Your task to perform on an android device: set the timer Image 0: 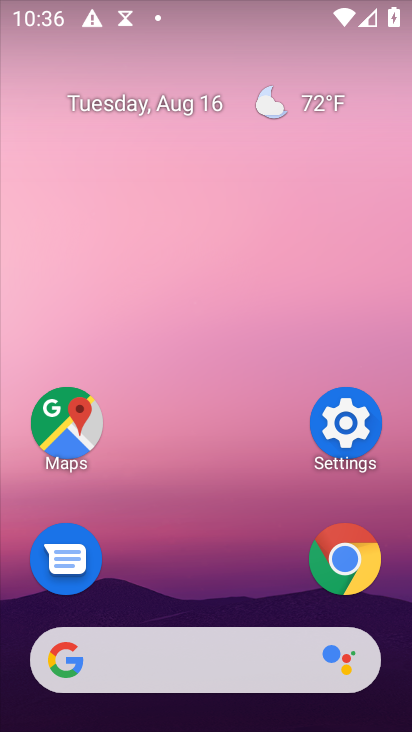
Step 0: drag from (210, 549) to (328, 56)
Your task to perform on an android device: set the timer Image 1: 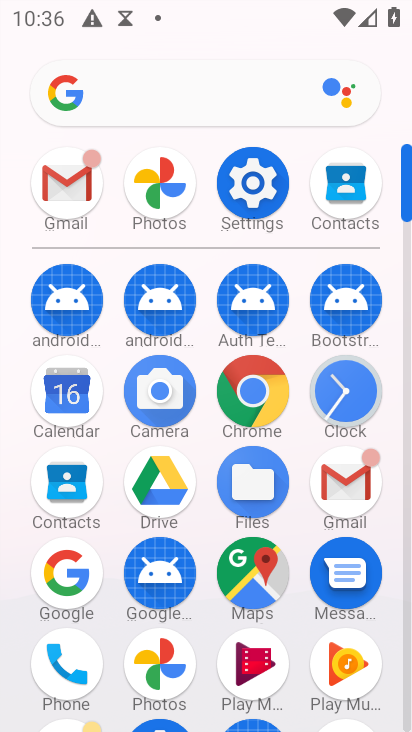
Step 1: click (353, 397)
Your task to perform on an android device: set the timer Image 2: 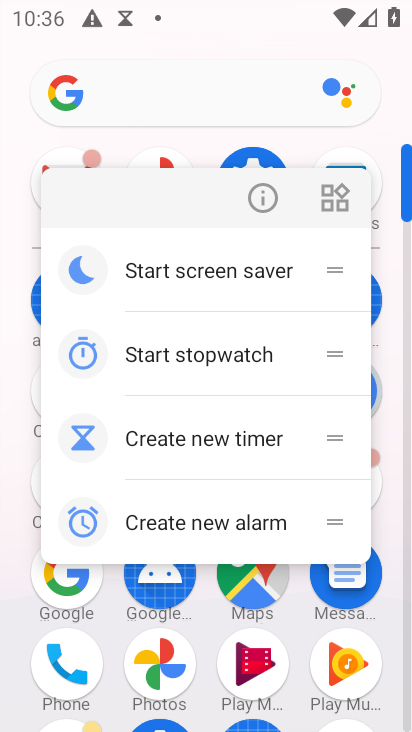
Step 2: click (377, 401)
Your task to perform on an android device: set the timer Image 3: 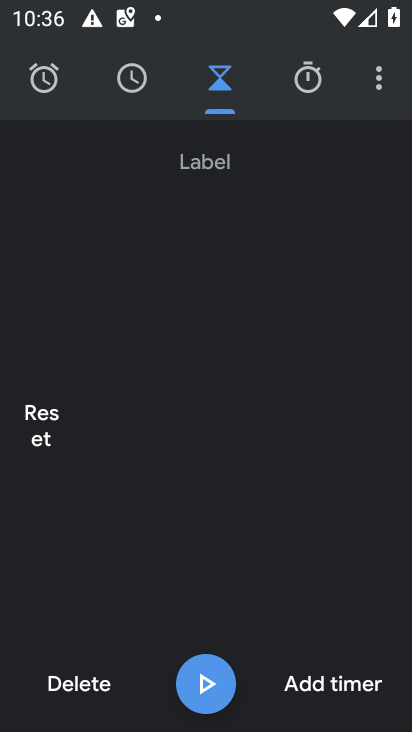
Step 3: click (51, 439)
Your task to perform on an android device: set the timer Image 4: 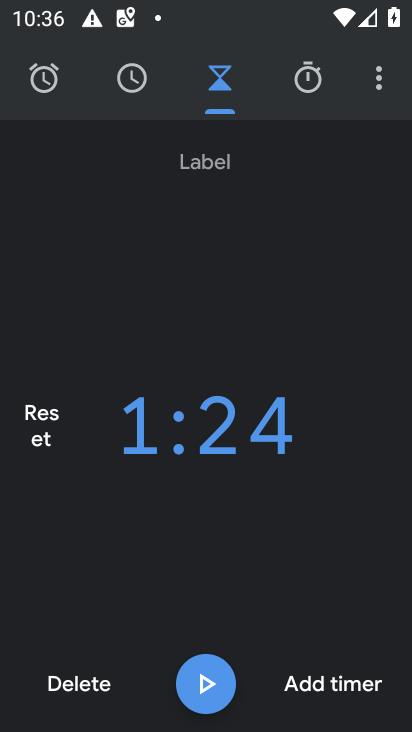
Step 4: click (44, 442)
Your task to perform on an android device: set the timer Image 5: 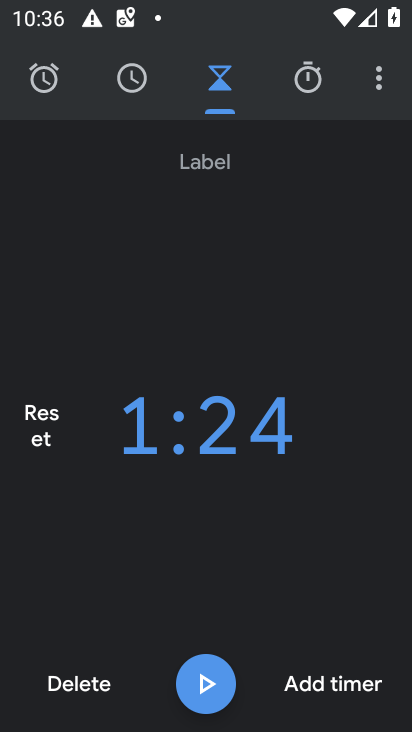
Step 5: click (92, 691)
Your task to perform on an android device: set the timer Image 6: 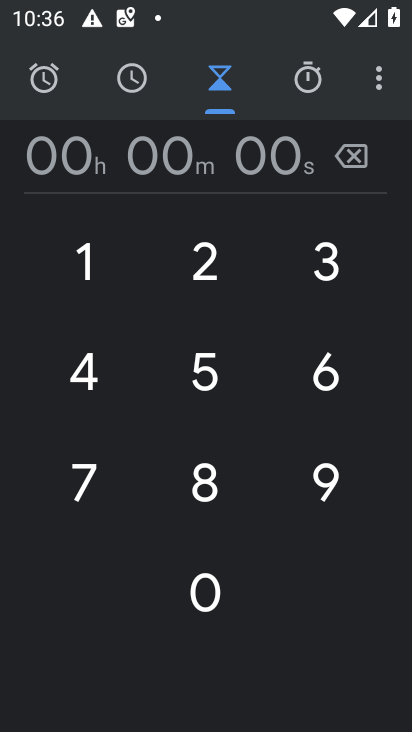
Step 6: click (84, 263)
Your task to perform on an android device: set the timer Image 7: 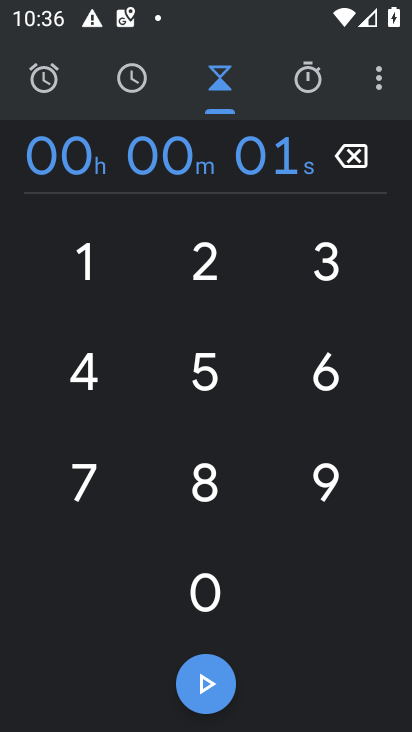
Step 7: click (331, 480)
Your task to perform on an android device: set the timer Image 8: 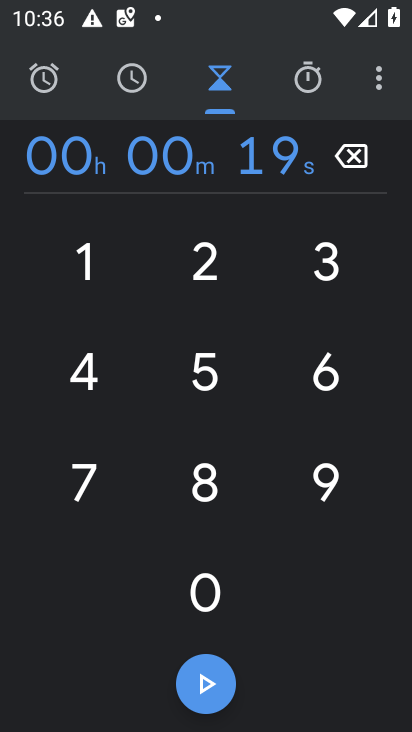
Step 8: click (223, 671)
Your task to perform on an android device: set the timer Image 9: 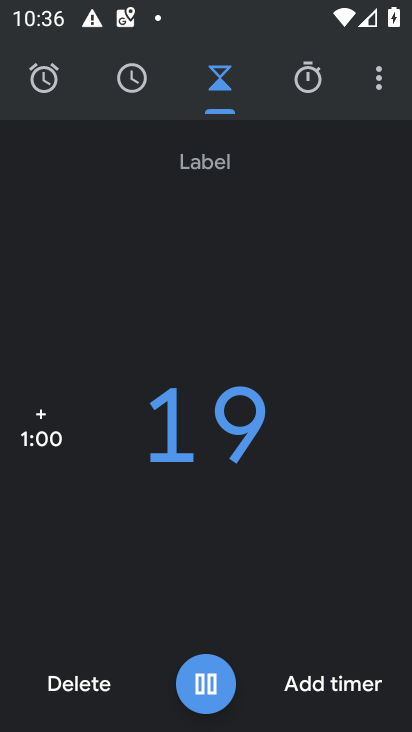
Step 9: click (211, 684)
Your task to perform on an android device: set the timer Image 10: 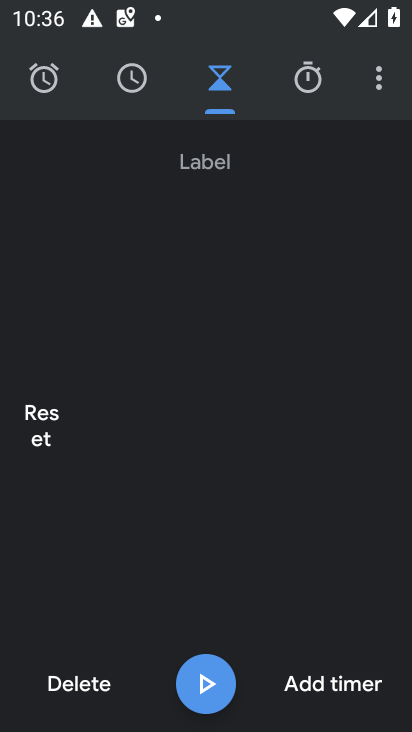
Step 10: task complete